Your task to perform on an android device: turn off location history Image 0: 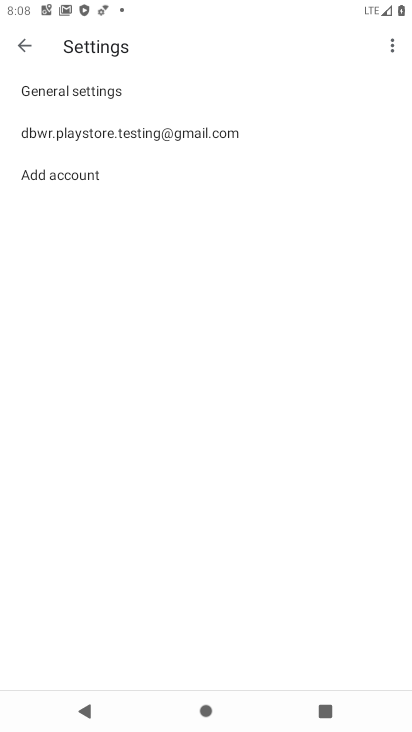
Step 0: press home button
Your task to perform on an android device: turn off location history Image 1: 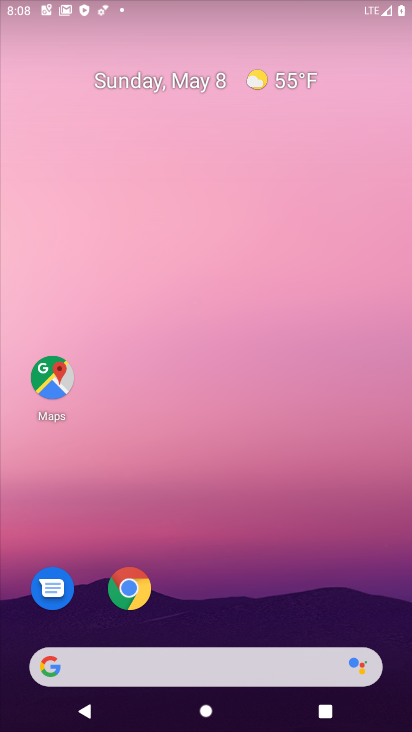
Step 1: drag from (354, 611) to (266, 28)
Your task to perform on an android device: turn off location history Image 2: 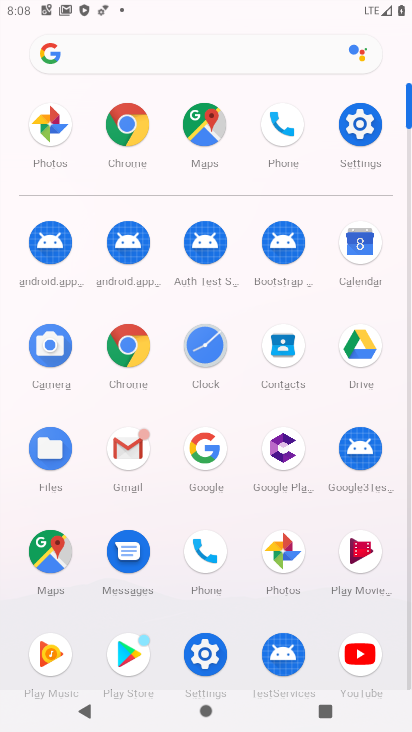
Step 2: click (356, 129)
Your task to perform on an android device: turn off location history Image 3: 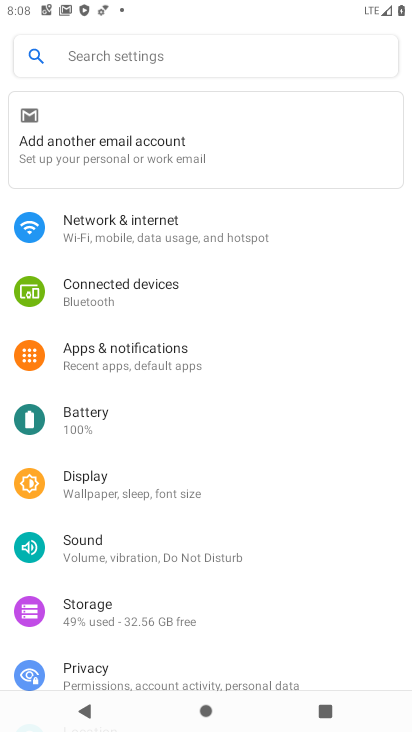
Step 3: drag from (171, 618) to (227, 230)
Your task to perform on an android device: turn off location history Image 4: 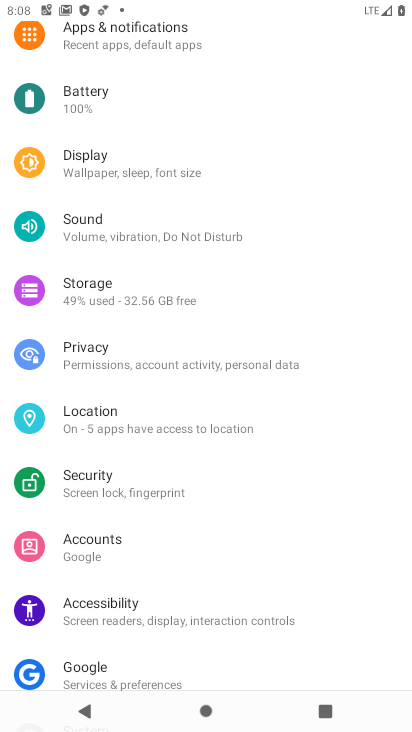
Step 4: click (147, 422)
Your task to perform on an android device: turn off location history Image 5: 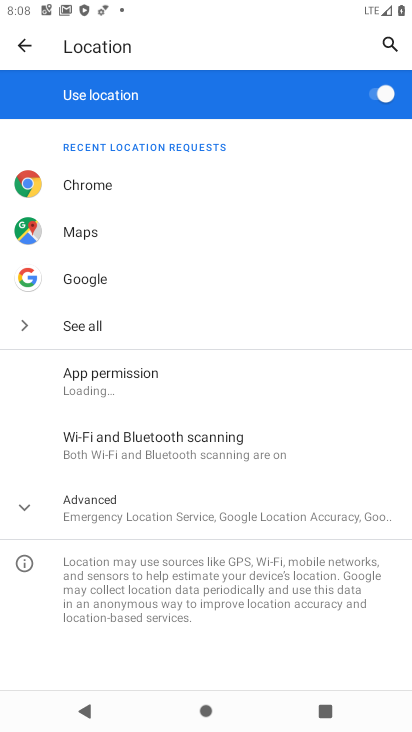
Step 5: click (50, 500)
Your task to perform on an android device: turn off location history Image 6: 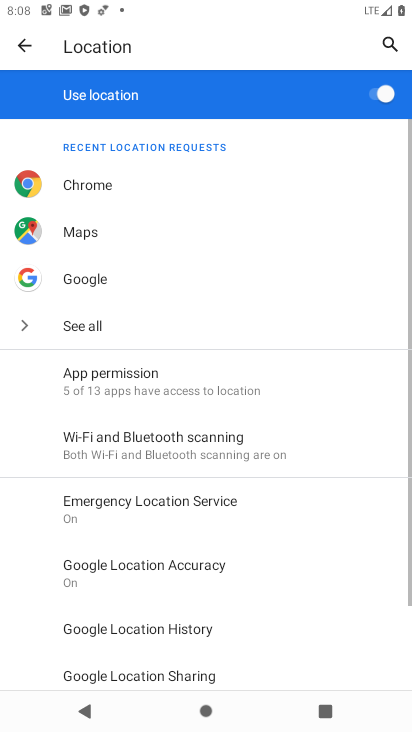
Step 6: click (200, 632)
Your task to perform on an android device: turn off location history Image 7: 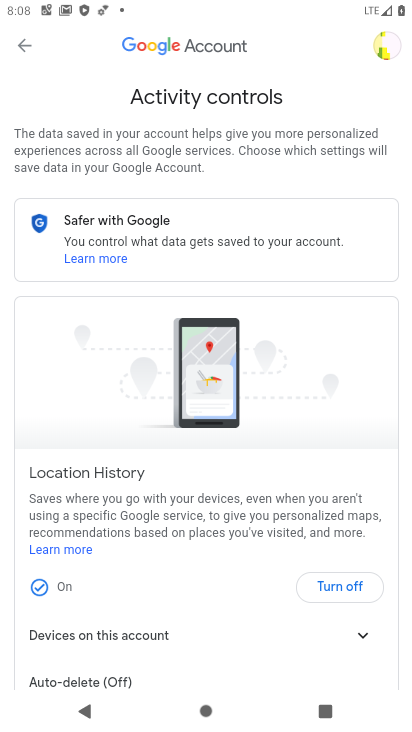
Step 7: task complete